Your task to perform on an android device: empty trash in the gmail app Image 0: 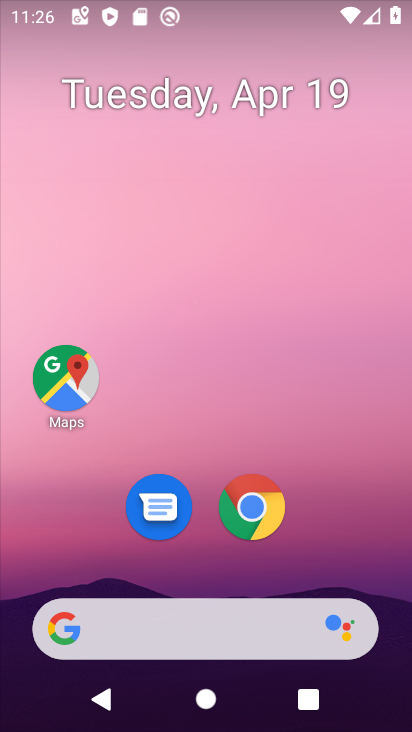
Step 0: drag from (383, 544) to (344, 134)
Your task to perform on an android device: empty trash in the gmail app Image 1: 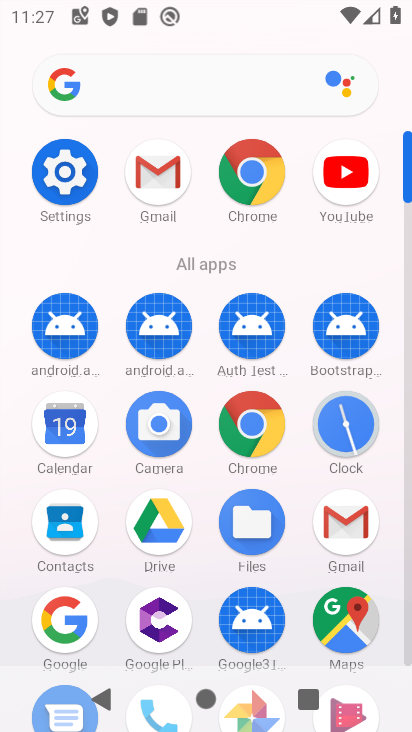
Step 1: drag from (387, 561) to (390, 297)
Your task to perform on an android device: empty trash in the gmail app Image 2: 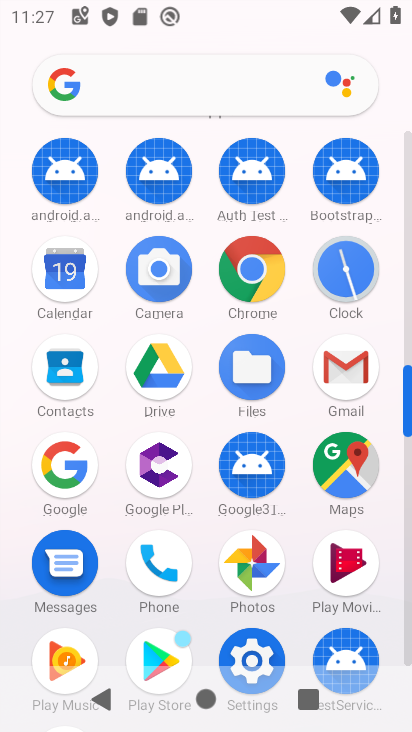
Step 2: click (340, 367)
Your task to perform on an android device: empty trash in the gmail app Image 3: 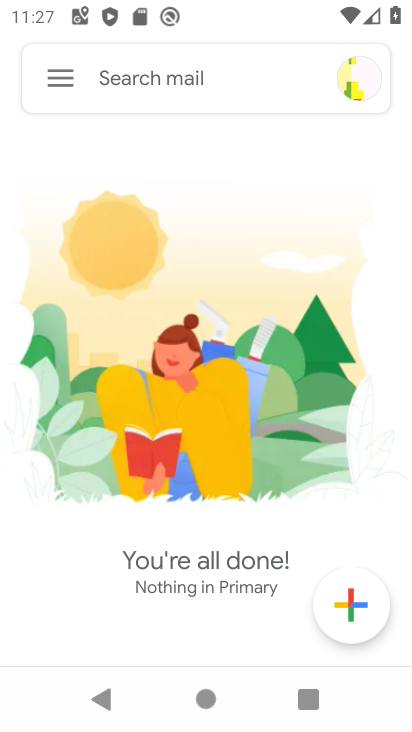
Step 3: click (52, 84)
Your task to perform on an android device: empty trash in the gmail app Image 4: 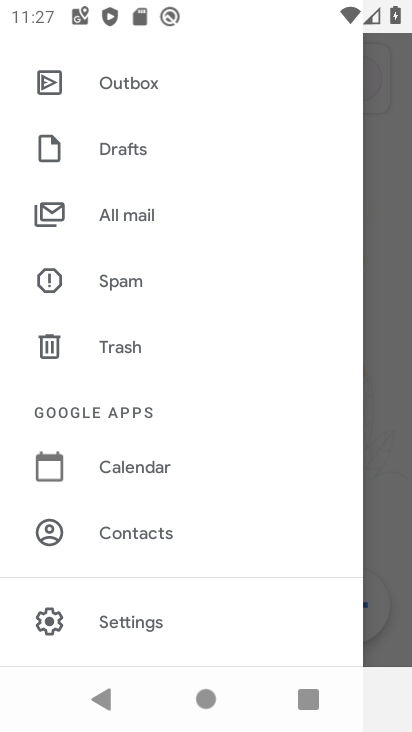
Step 4: click (127, 329)
Your task to perform on an android device: empty trash in the gmail app Image 5: 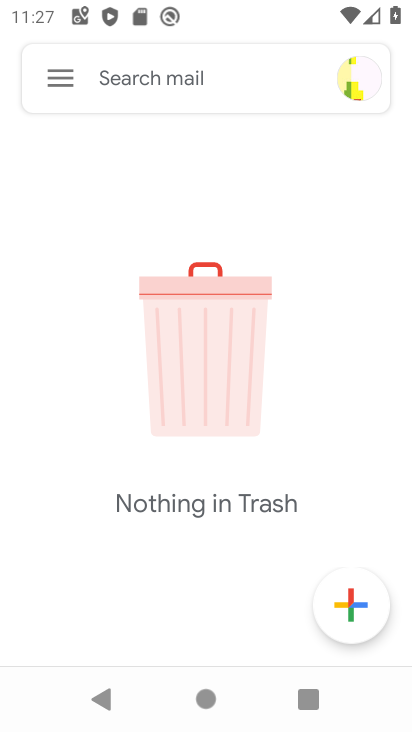
Step 5: task complete